Your task to perform on an android device: Open Yahoo.com Image 0: 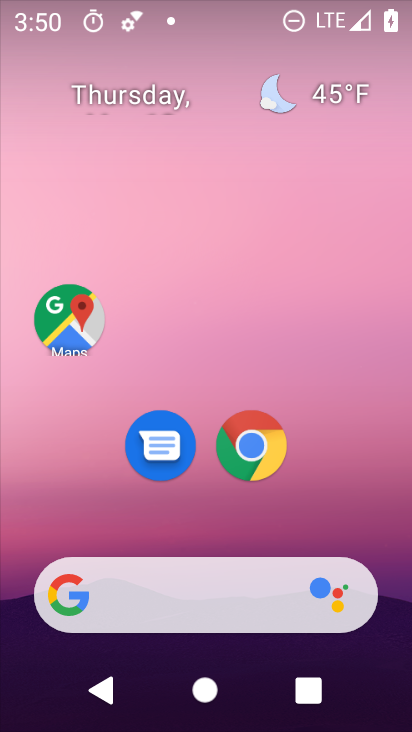
Step 0: click (251, 443)
Your task to perform on an android device: Open Yahoo.com Image 1: 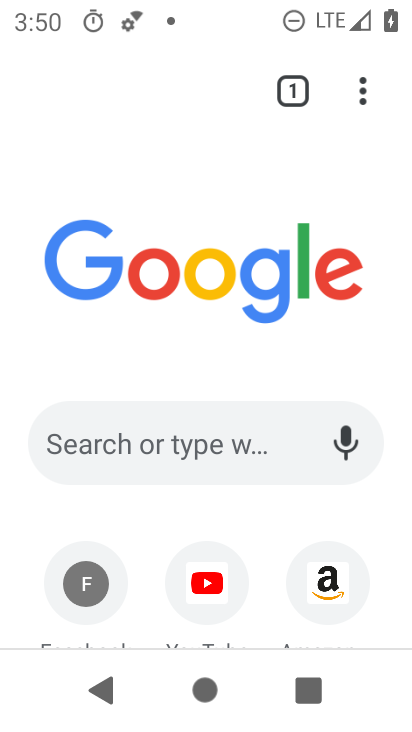
Step 1: click (90, 430)
Your task to perform on an android device: Open Yahoo.com Image 2: 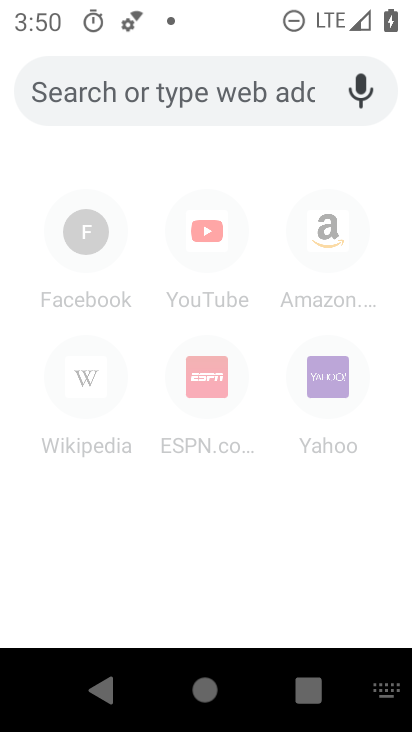
Step 2: type "Yahoo.com"
Your task to perform on an android device: Open Yahoo.com Image 3: 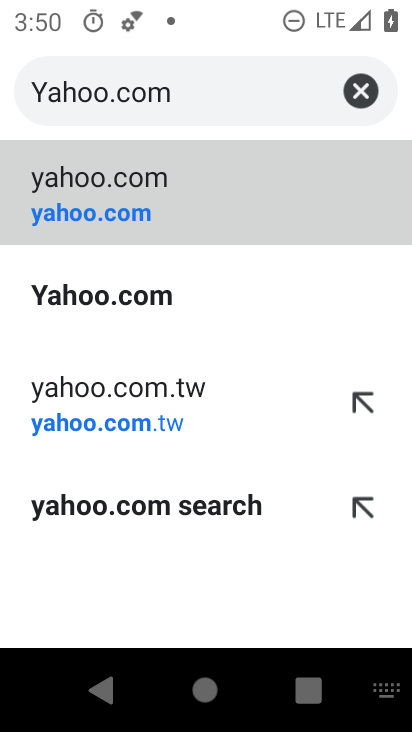
Step 3: click (166, 293)
Your task to perform on an android device: Open Yahoo.com Image 4: 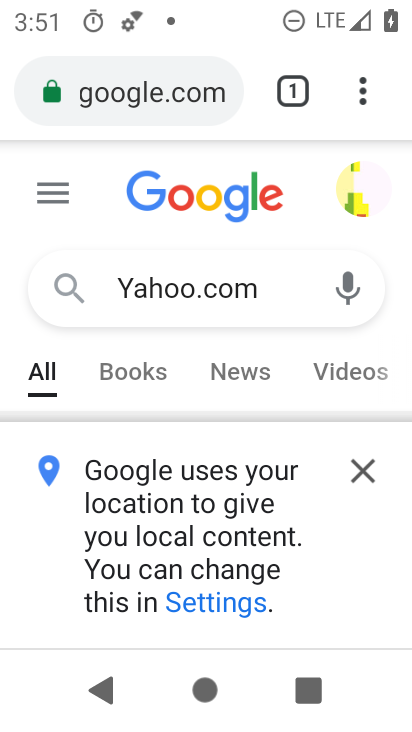
Step 4: click (359, 474)
Your task to perform on an android device: Open Yahoo.com Image 5: 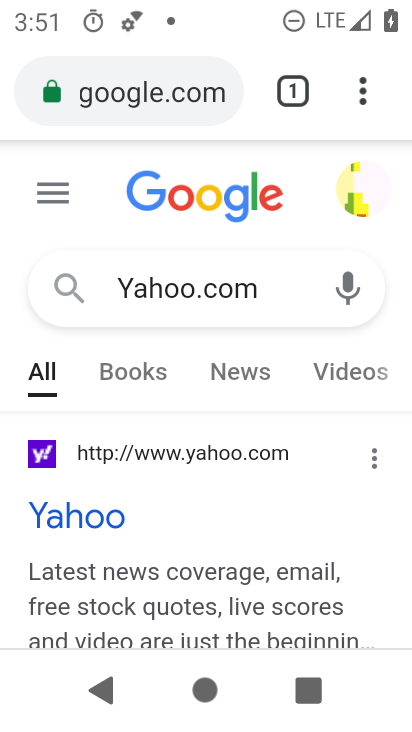
Step 5: click (86, 456)
Your task to perform on an android device: Open Yahoo.com Image 6: 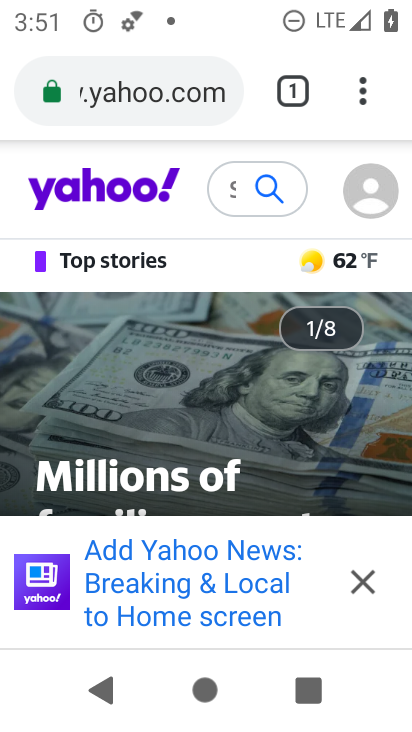
Step 6: task complete